Your task to perform on an android device: change keyboard looks Image 0: 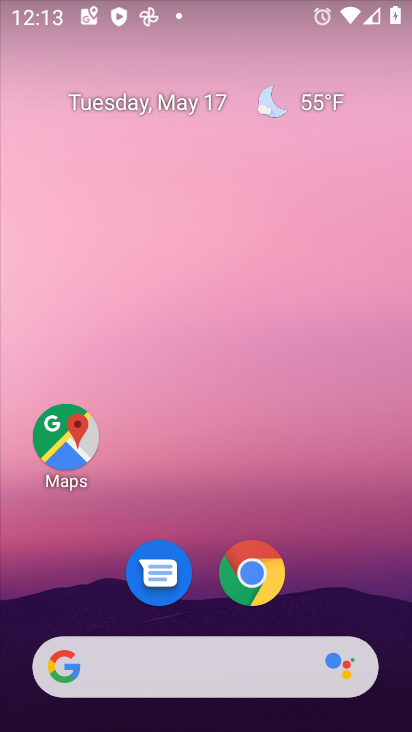
Step 0: drag from (376, 569) to (334, 235)
Your task to perform on an android device: change keyboard looks Image 1: 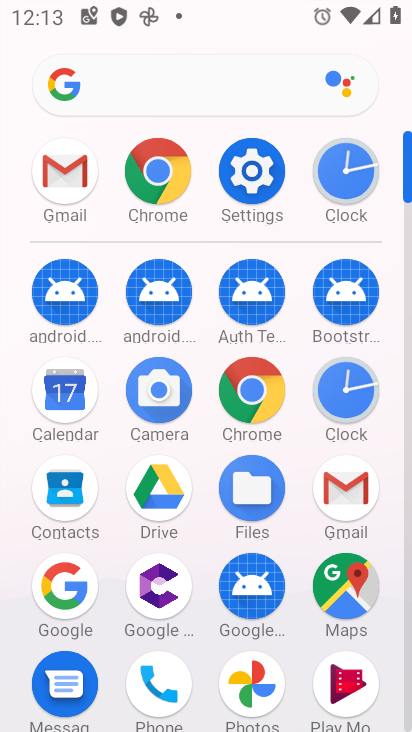
Step 1: click (244, 197)
Your task to perform on an android device: change keyboard looks Image 2: 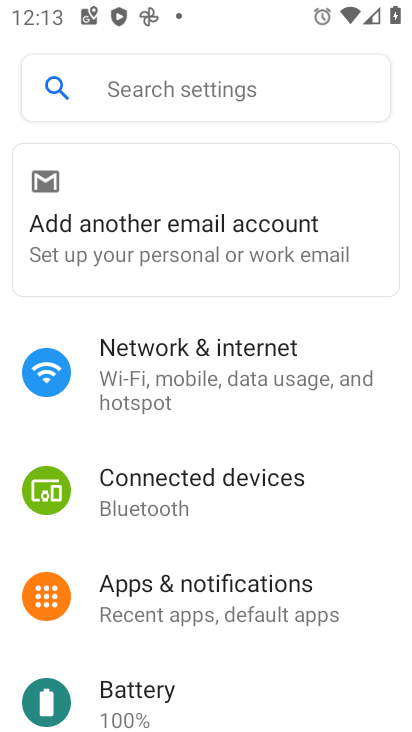
Step 2: drag from (323, 626) to (228, 100)
Your task to perform on an android device: change keyboard looks Image 3: 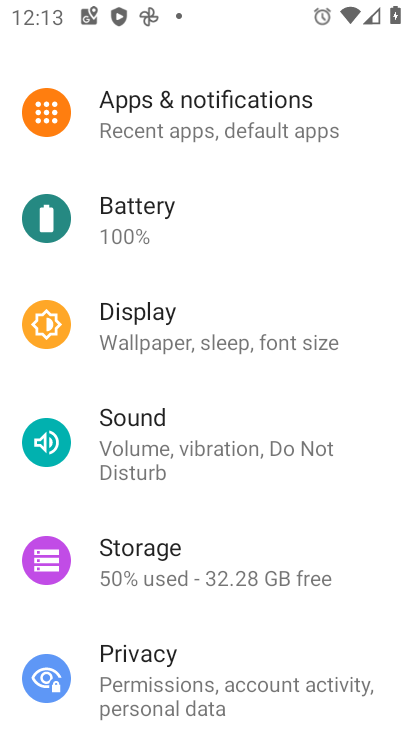
Step 3: drag from (272, 613) to (192, 93)
Your task to perform on an android device: change keyboard looks Image 4: 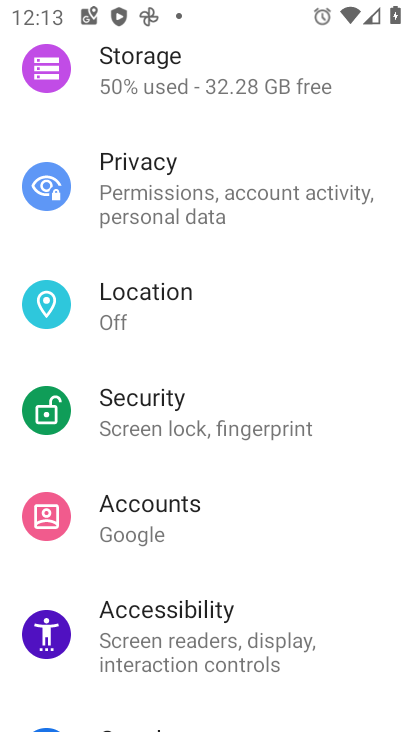
Step 4: drag from (241, 560) to (206, 52)
Your task to perform on an android device: change keyboard looks Image 5: 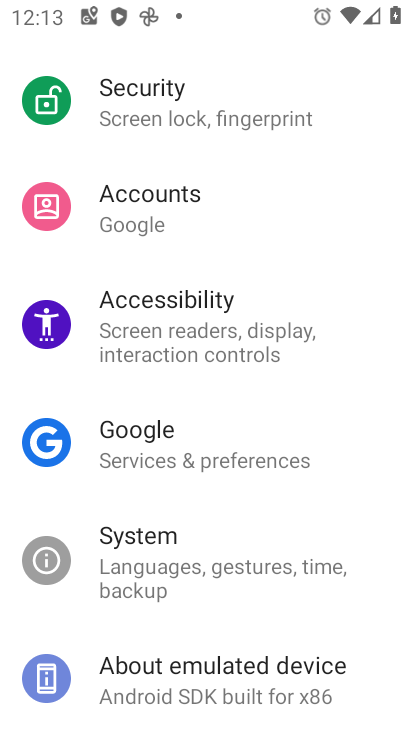
Step 5: click (175, 585)
Your task to perform on an android device: change keyboard looks Image 6: 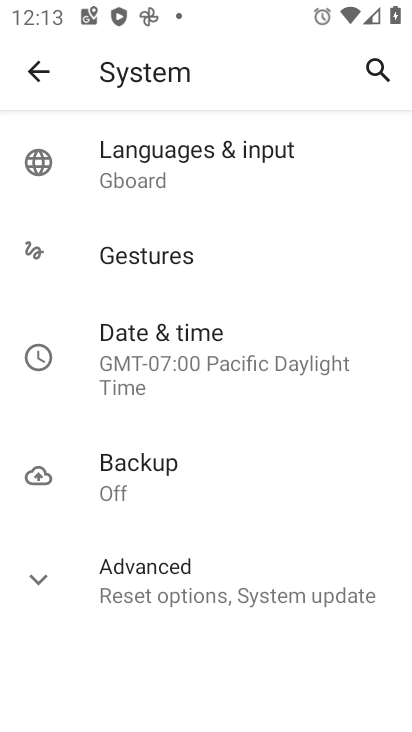
Step 6: click (134, 186)
Your task to perform on an android device: change keyboard looks Image 7: 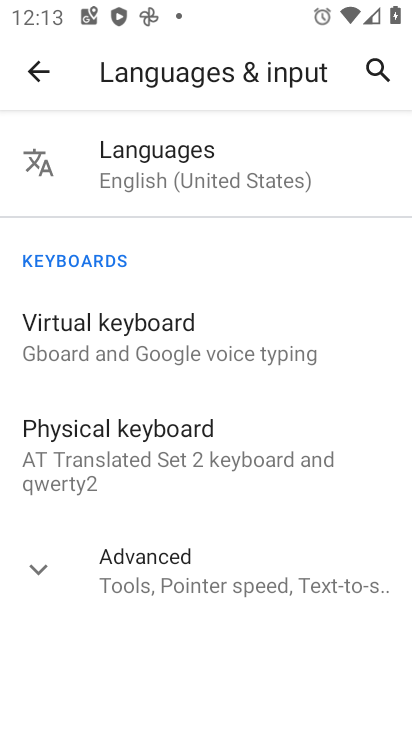
Step 7: click (171, 327)
Your task to perform on an android device: change keyboard looks Image 8: 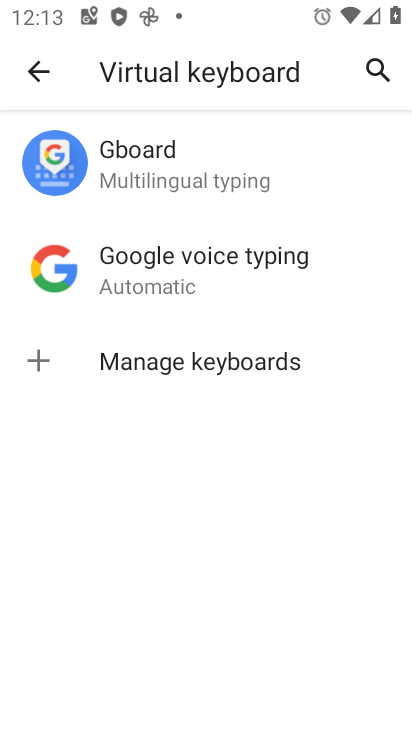
Step 8: click (186, 195)
Your task to perform on an android device: change keyboard looks Image 9: 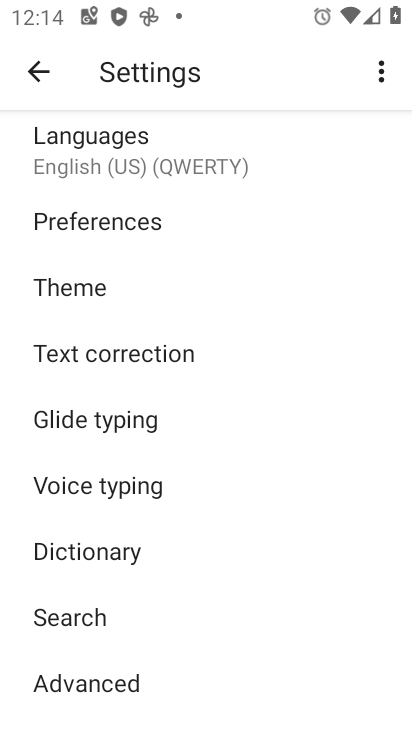
Step 9: click (112, 296)
Your task to perform on an android device: change keyboard looks Image 10: 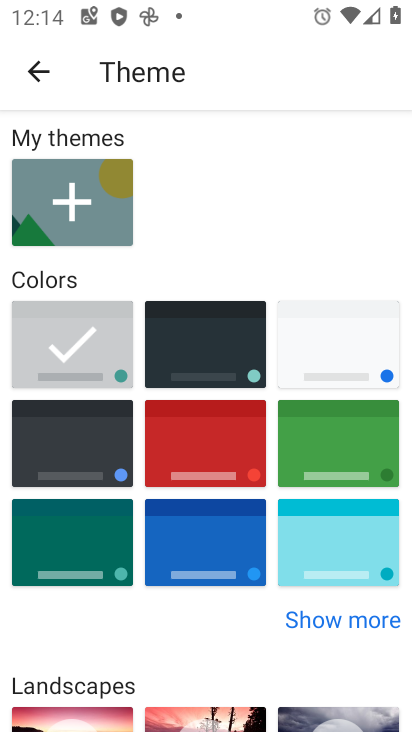
Step 10: click (256, 443)
Your task to perform on an android device: change keyboard looks Image 11: 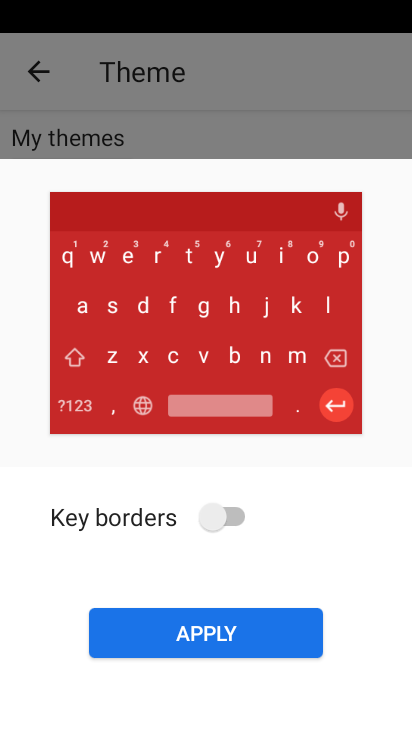
Step 11: click (285, 615)
Your task to perform on an android device: change keyboard looks Image 12: 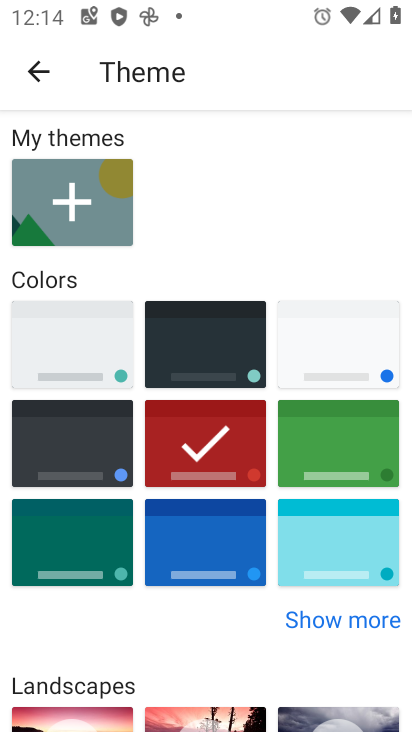
Step 12: task complete